Your task to perform on an android device: Go to Amazon Image 0: 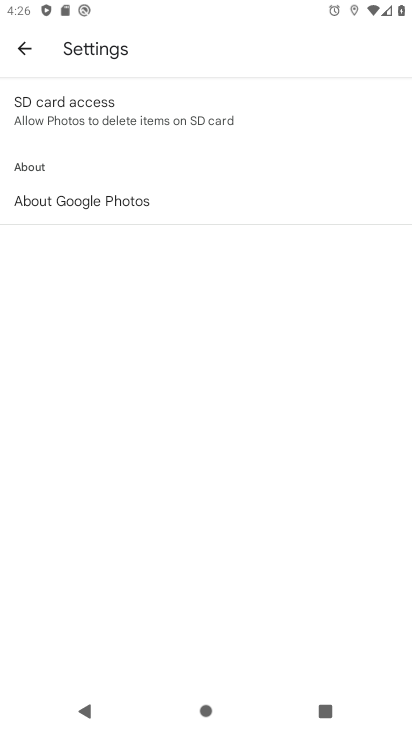
Step 0: press home button
Your task to perform on an android device: Go to Amazon Image 1: 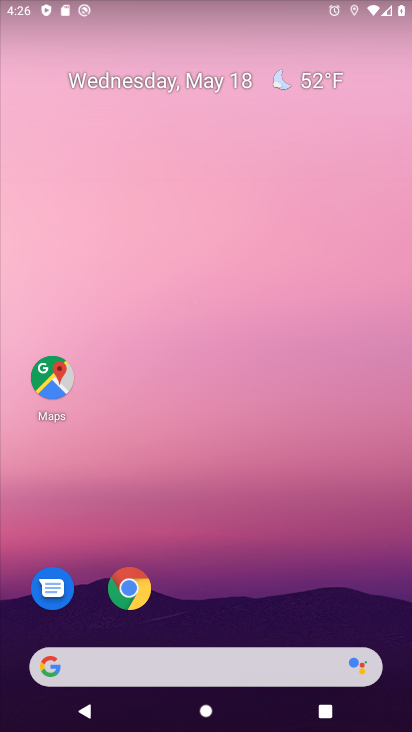
Step 1: click (132, 588)
Your task to perform on an android device: Go to Amazon Image 2: 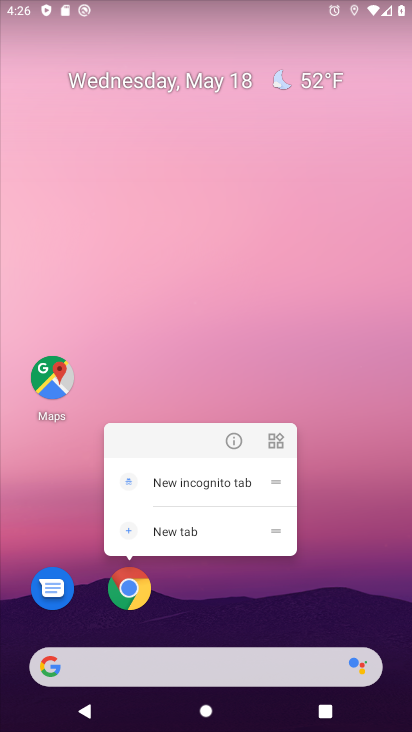
Step 2: click (127, 589)
Your task to perform on an android device: Go to Amazon Image 3: 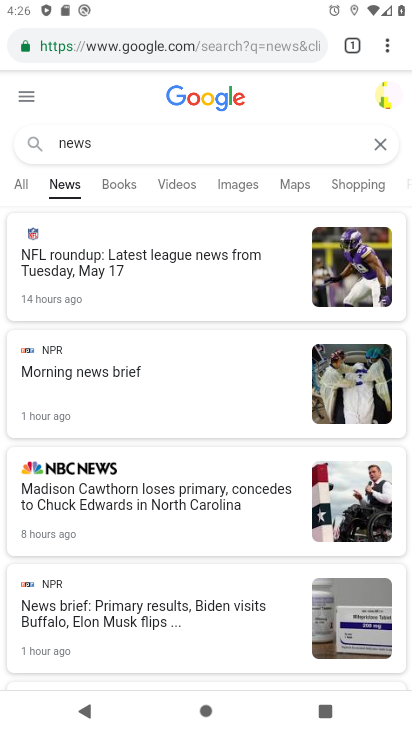
Step 3: click (223, 43)
Your task to perform on an android device: Go to Amazon Image 4: 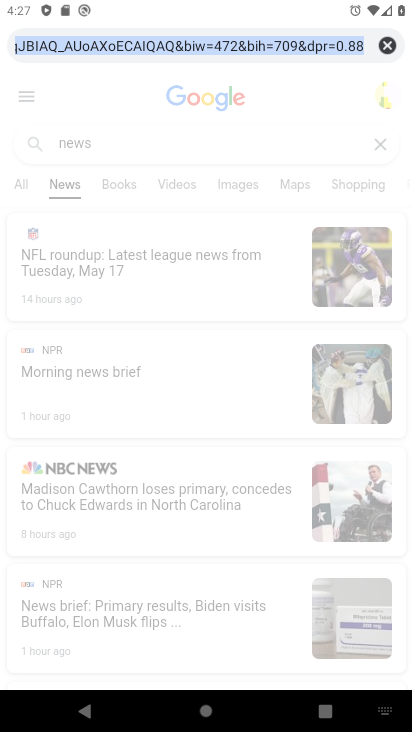
Step 4: type "amazon"
Your task to perform on an android device: Go to Amazon Image 5: 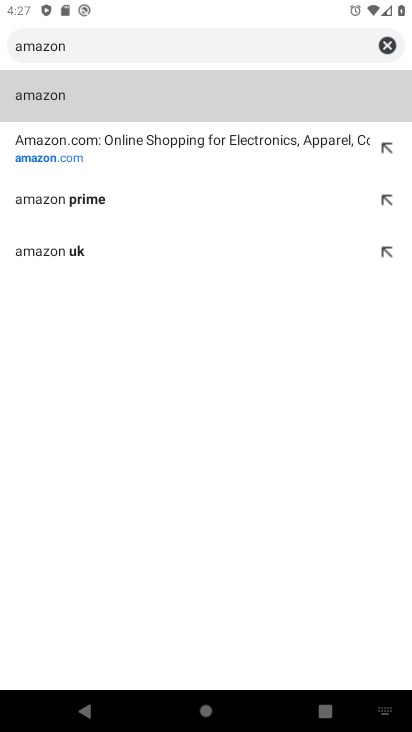
Step 5: click (71, 162)
Your task to perform on an android device: Go to Amazon Image 6: 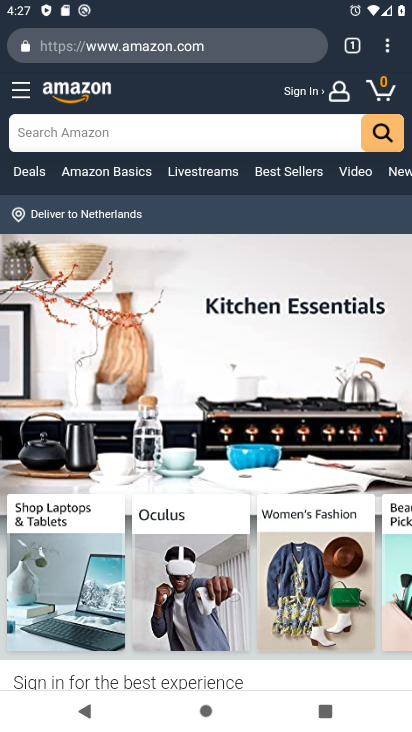
Step 6: task complete